Your task to perform on an android device: What's on my calendar tomorrow? Image 0: 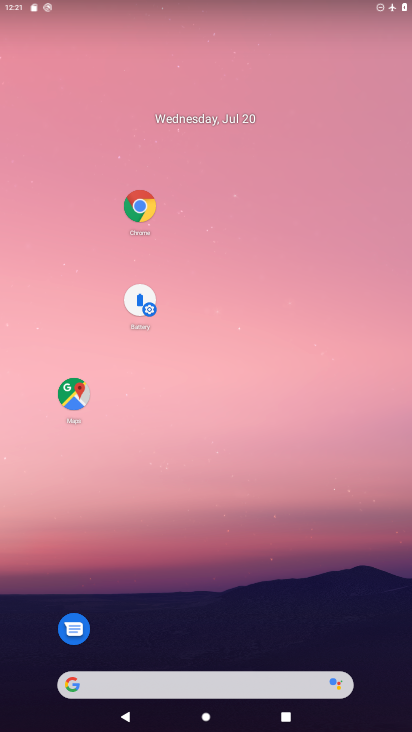
Step 0: drag from (188, 626) to (195, 104)
Your task to perform on an android device: What's on my calendar tomorrow? Image 1: 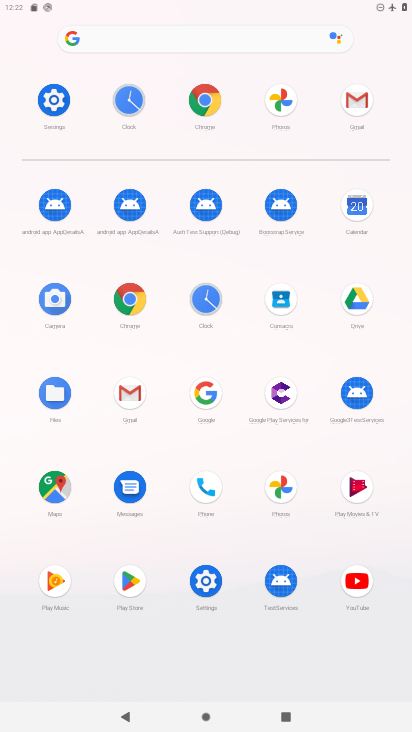
Step 1: click (360, 211)
Your task to perform on an android device: What's on my calendar tomorrow? Image 2: 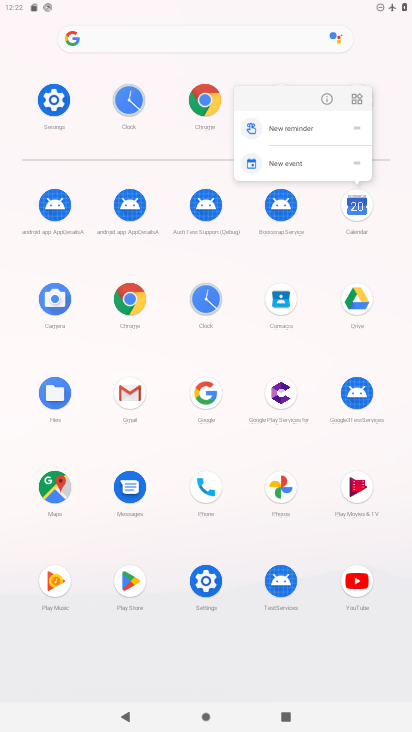
Step 2: click (331, 102)
Your task to perform on an android device: What's on my calendar tomorrow? Image 3: 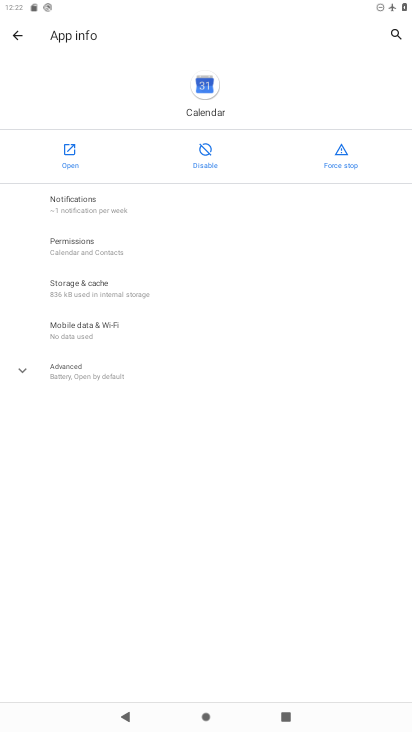
Step 3: click (82, 157)
Your task to perform on an android device: What's on my calendar tomorrow? Image 4: 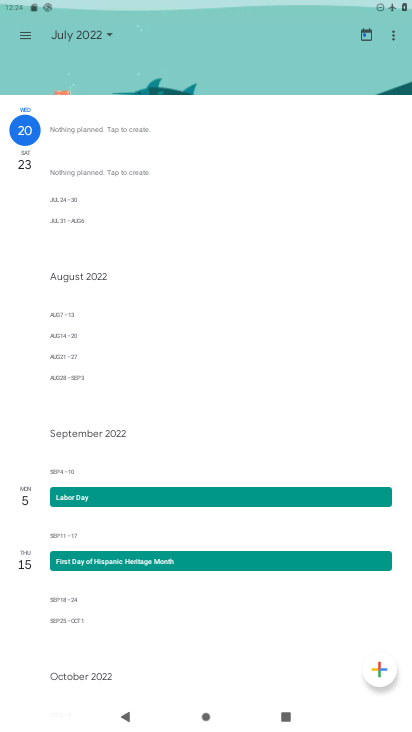
Step 4: drag from (188, 565) to (257, 335)
Your task to perform on an android device: What's on my calendar tomorrow? Image 5: 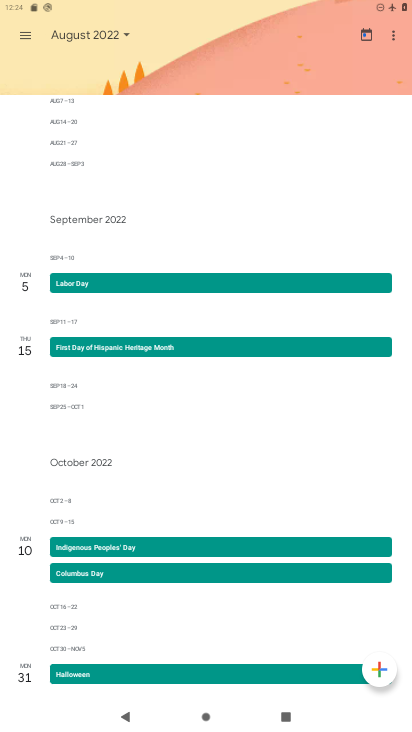
Step 5: click (371, 38)
Your task to perform on an android device: What's on my calendar tomorrow? Image 6: 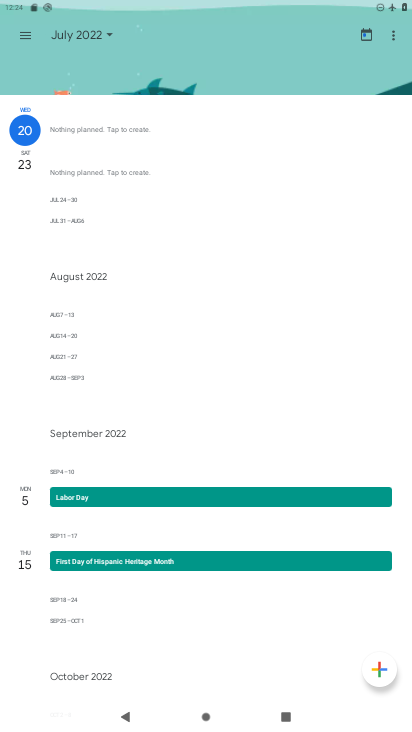
Step 6: click (106, 36)
Your task to perform on an android device: What's on my calendar tomorrow? Image 7: 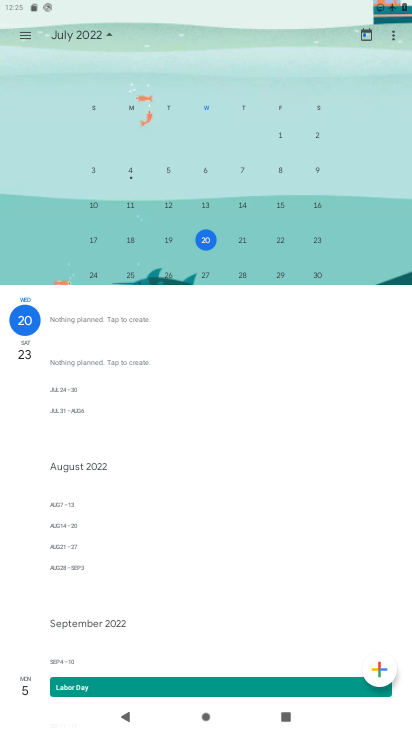
Step 7: click (241, 245)
Your task to perform on an android device: What's on my calendar tomorrow? Image 8: 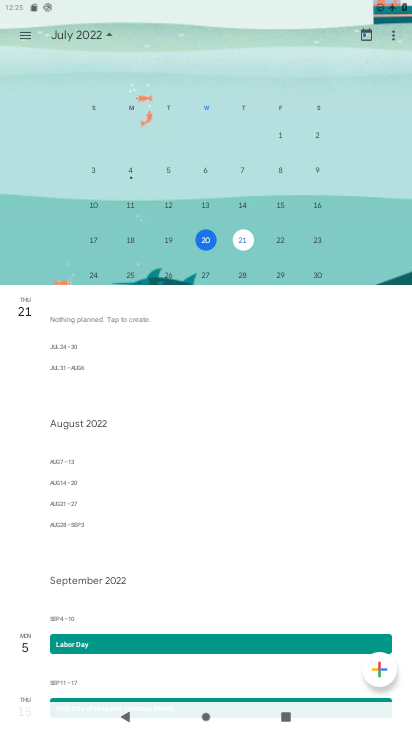
Step 8: task complete